Your task to perform on an android device: turn smart compose on in the gmail app Image 0: 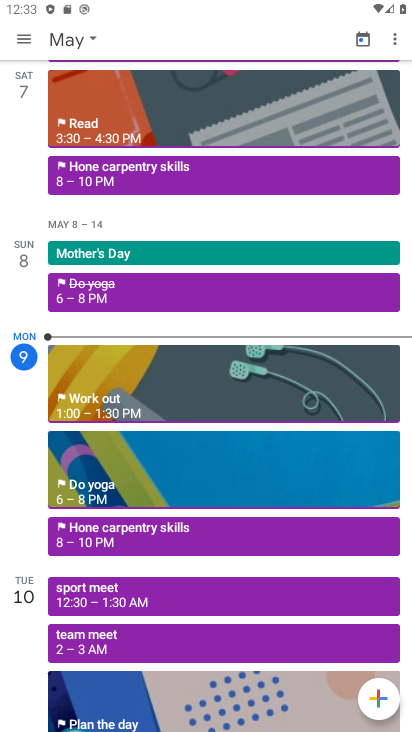
Step 0: press home button
Your task to perform on an android device: turn smart compose on in the gmail app Image 1: 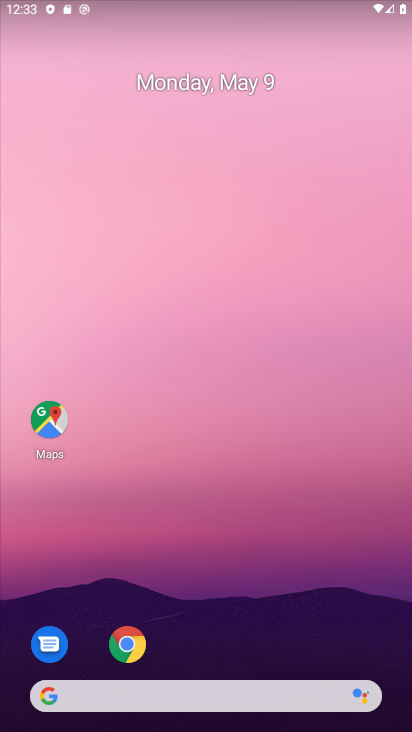
Step 1: drag from (240, 562) to (299, 23)
Your task to perform on an android device: turn smart compose on in the gmail app Image 2: 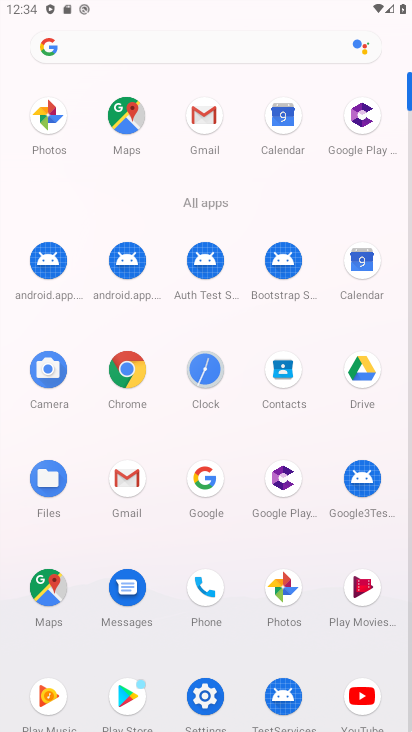
Step 2: click (96, 471)
Your task to perform on an android device: turn smart compose on in the gmail app Image 3: 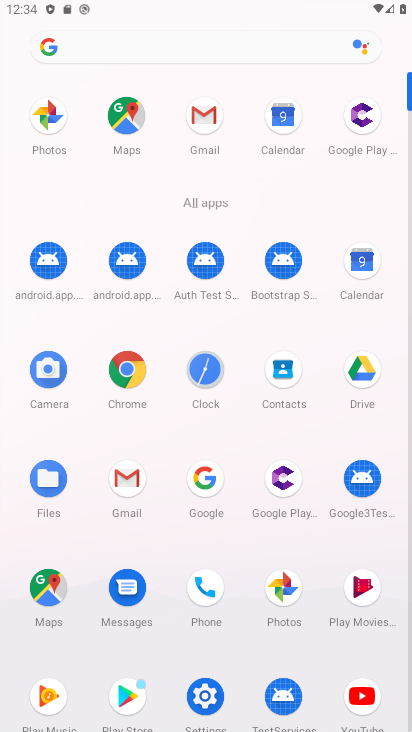
Step 3: click (115, 478)
Your task to perform on an android device: turn smart compose on in the gmail app Image 4: 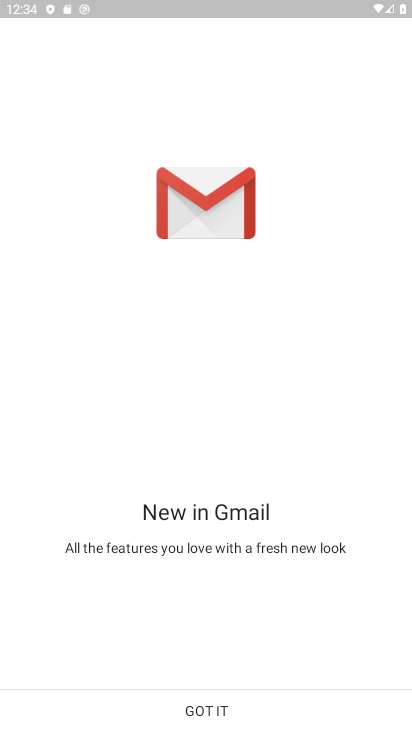
Step 4: click (204, 710)
Your task to perform on an android device: turn smart compose on in the gmail app Image 5: 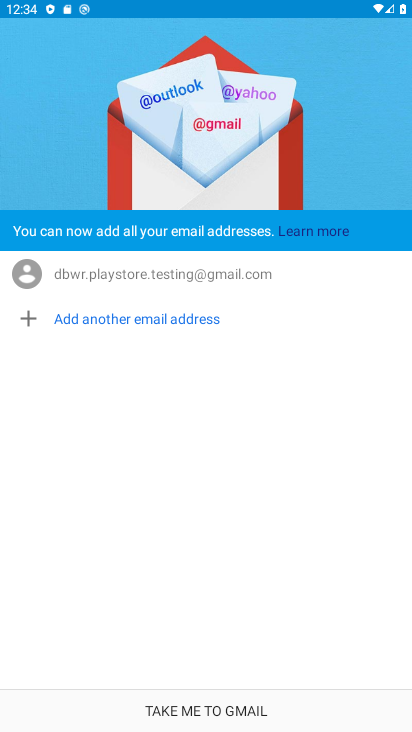
Step 5: click (241, 716)
Your task to perform on an android device: turn smart compose on in the gmail app Image 6: 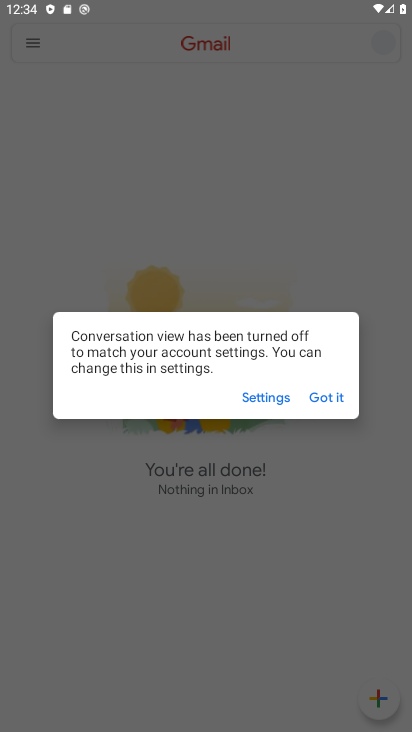
Step 6: click (340, 393)
Your task to perform on an android device: turn smart compose on in the gmail app Image 7: 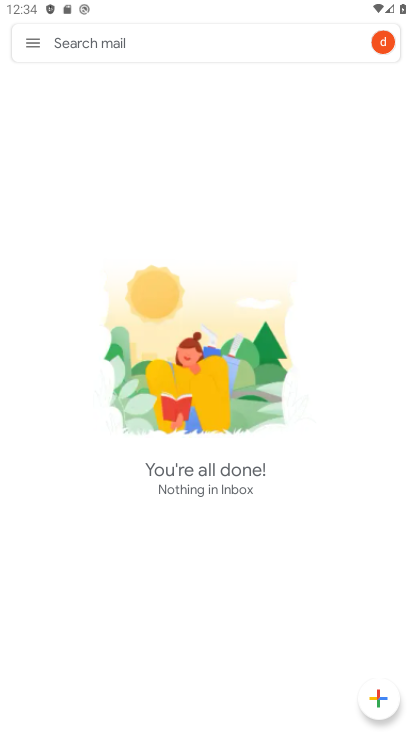
Step 7: click (35, 49)
Your task to perform on an android device: turn smart compose on in the gmail app Image 8: 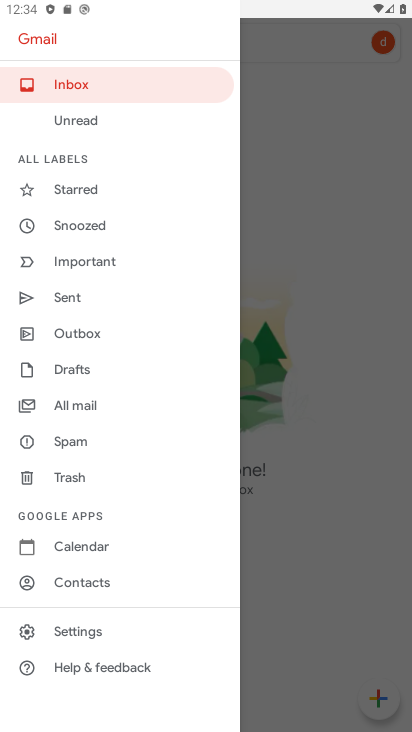
Step 8: click (88, 630)
Your task to perform on an android device: turn smart compose on in the gmail app Image 9: 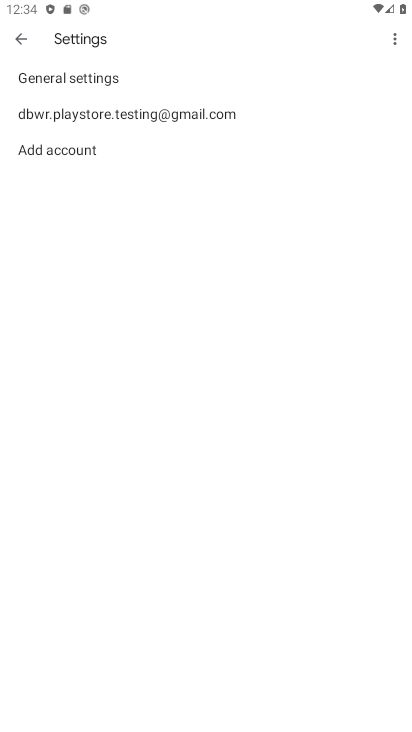
Step 9: click (188, 114)
Your task to perform on an android device: turn smart compose on in the gmail app Image 10: 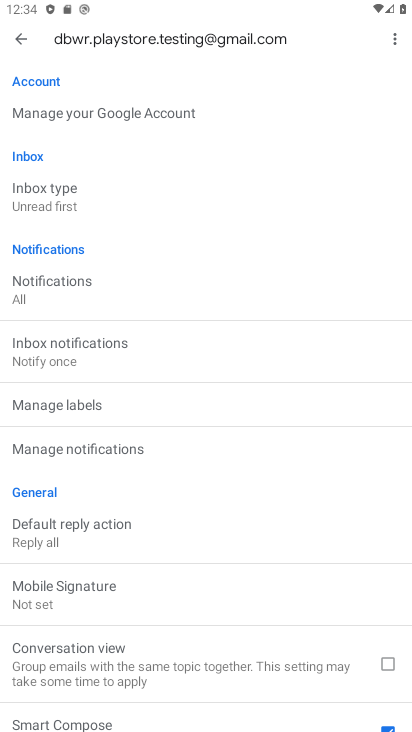
Step 10: task complete